Your task to perform on an android device: find photos in the google photos app Image 0: 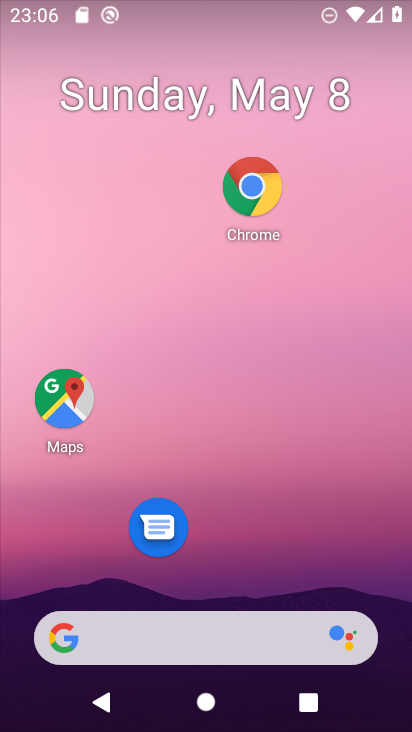
Step 0: drag from (264, 516) to (305, 194)
Your task to perform on an android device: find photos in the google photos app Image 1: 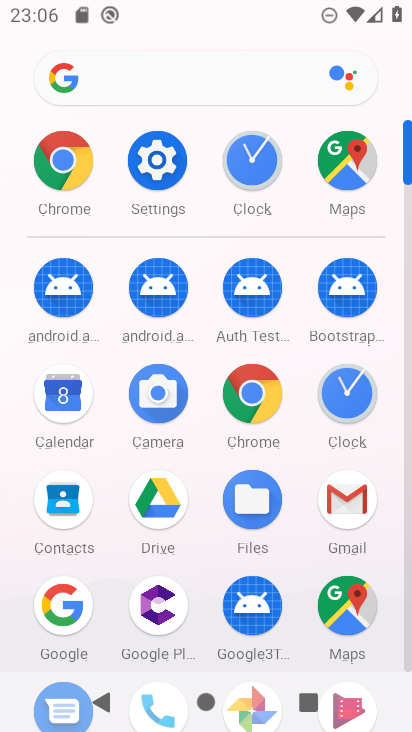
Step 1: drag from (301, 615) to (288, 323)
Your task to perform on an android device: find photos in the google photos app Image 2: 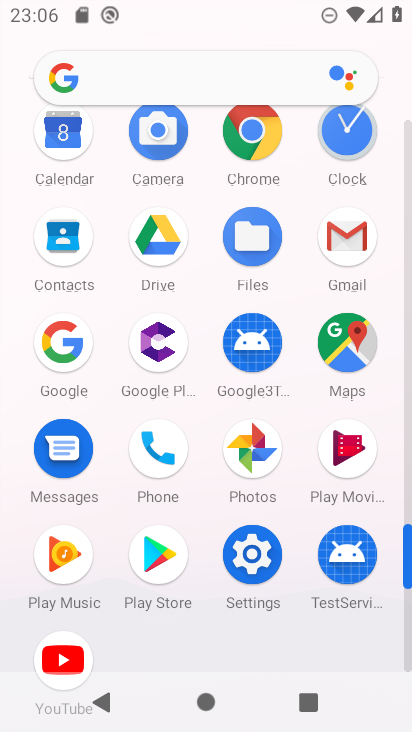
Step 2: click (249, 461)
Your task to perform on an android device: find photos in the google photos app Image 3: 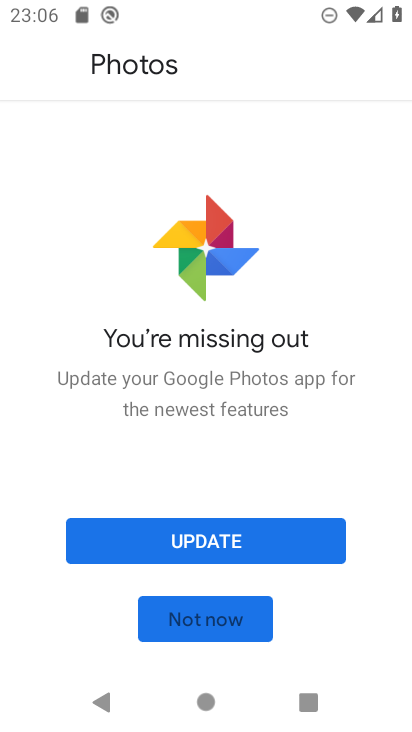
Step 3: click (255, 614)
Your task to perform on an android device: find photos in the google photos app Image 4: 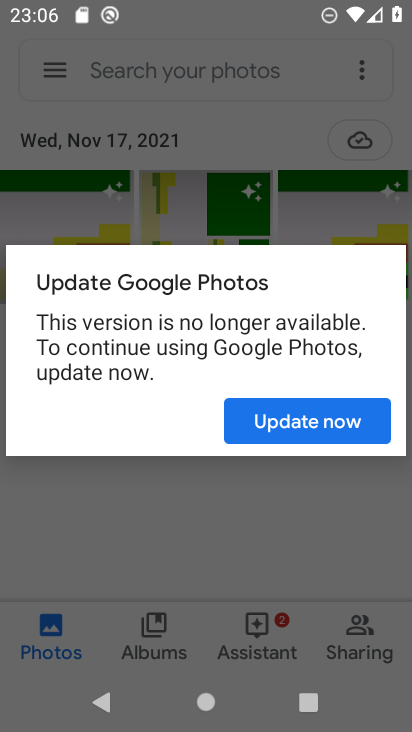
Step 4: click (294, 410)
Your task to perform on an android device: find photos in the google photos app Image 5: 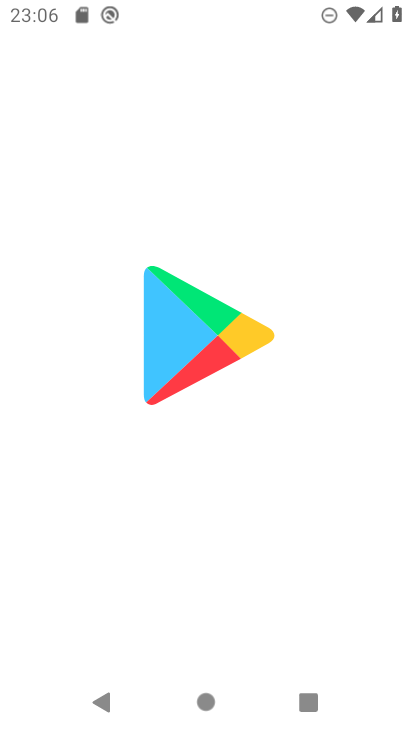
Step 5: press back button
Your task to perform on an android device: find photos in the google photos app Image 6: 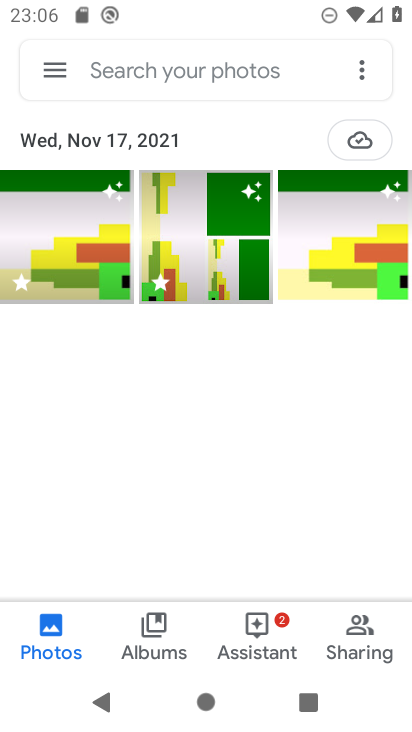
Step 6: click (47, 212)
Your task to perform on an android device: find photos in the google photos app Image 7: 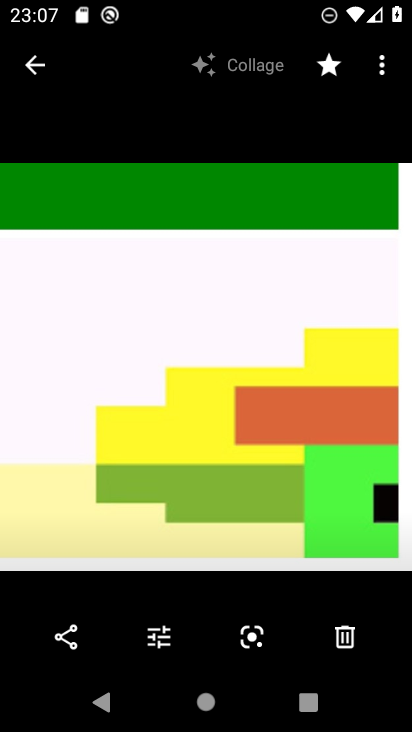
Step 7: task complete